Your task to perform on an android device: Open accessibility settings Image 0: 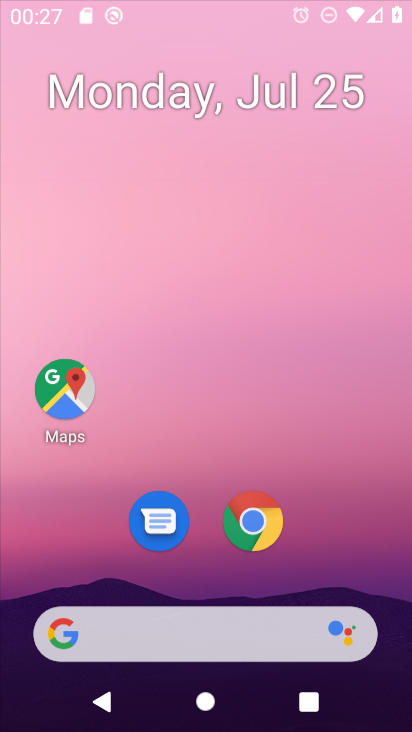
Step 0: press home button
Your task to perform on an android device: Open accessibility settings Image 1: 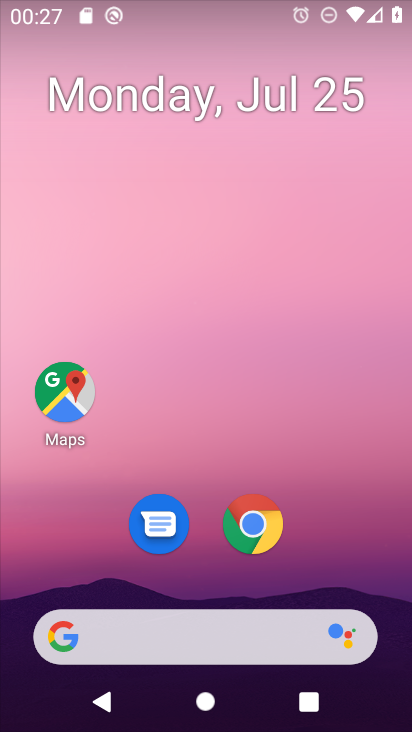
Step 1: drag from (214, 630) to (376, 94)
Your task to perform on an android device: Open accessibility settings Image 2: 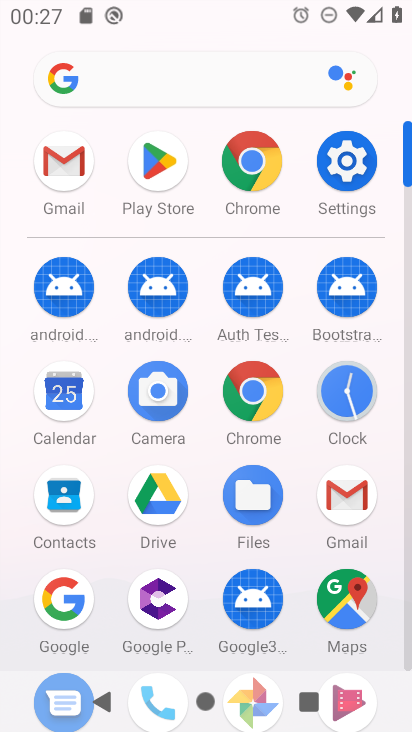
Step 2: click (349, 160)
Your task to perform on an android device: Open accessibility settings Image 3: 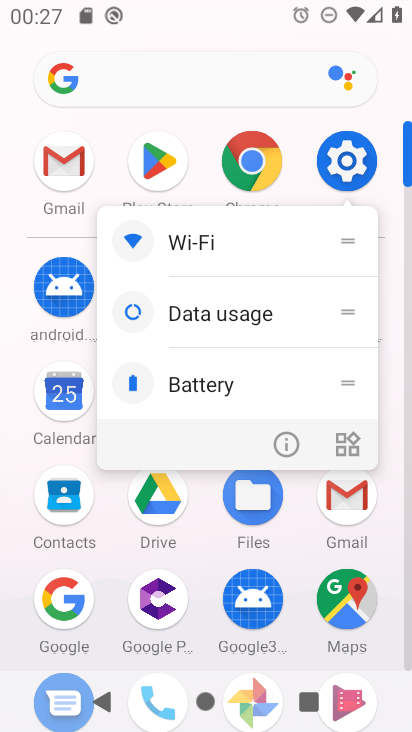
Step 3: click (341, 168)
Your task to perform on an android device: Open accessibility settings Image 4: 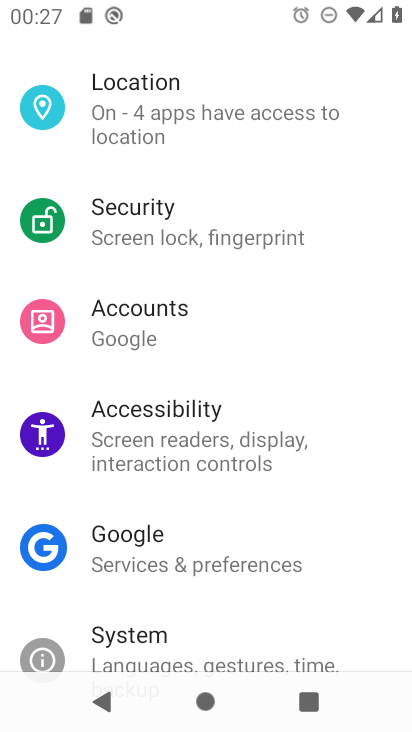
Step 4: drag from (256, 642) to (315, 482)
Your task to perform on an android device: Open accessibility settings Image 5: 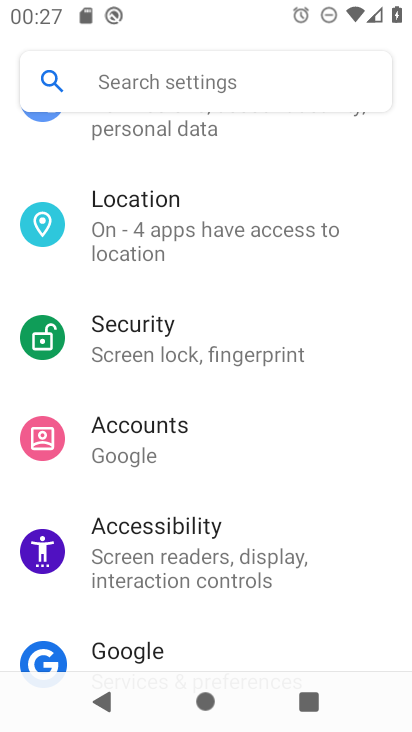
Step 5: click (179, 546)
Your task to perform on an android device: Open accessibility settings Image 6: 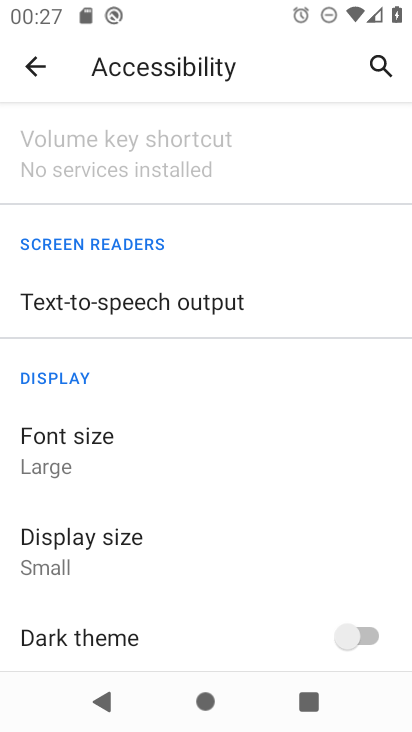
Step 6: task complete